Your task to perform on an android device: search for starred emails in the gmail app Image 0: 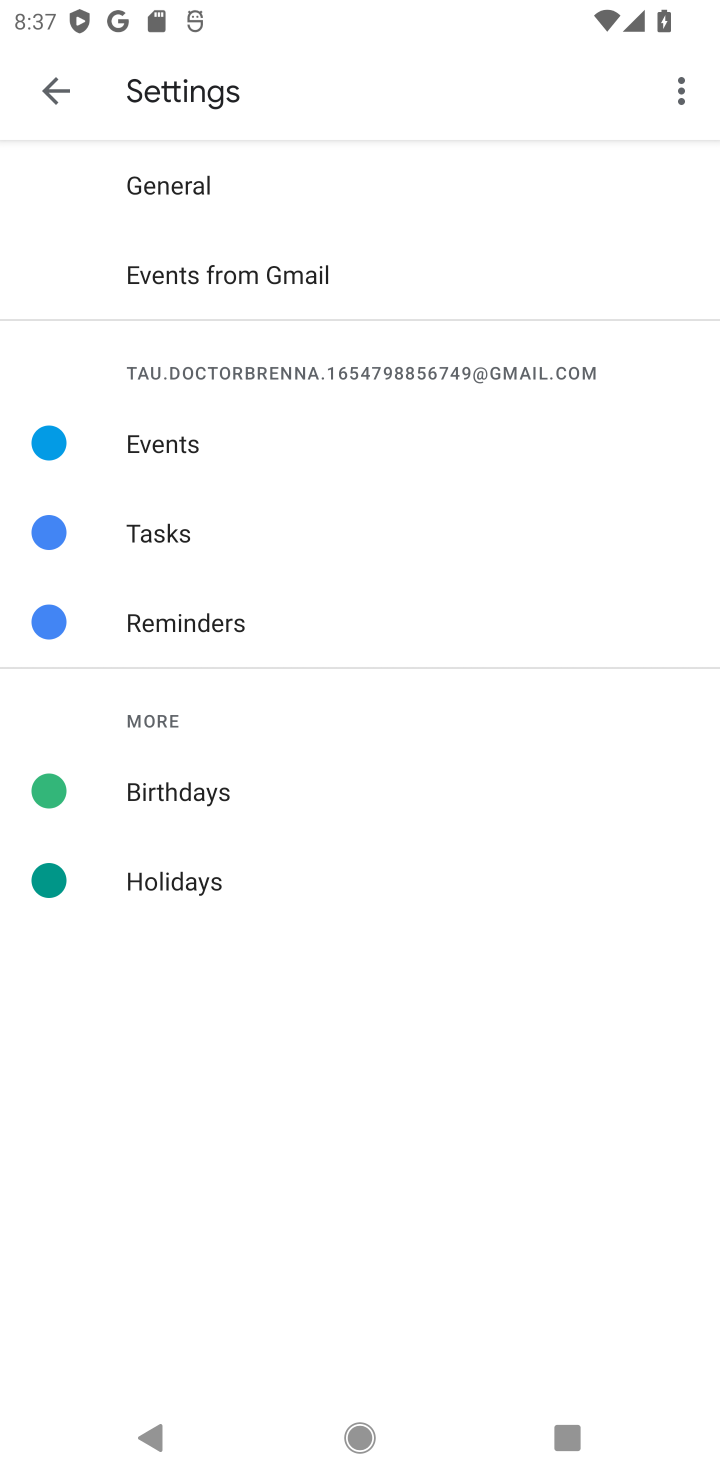
Step 0: press home button
Your task to perform on an android device: search for starred emails in the gmail app Image 1: 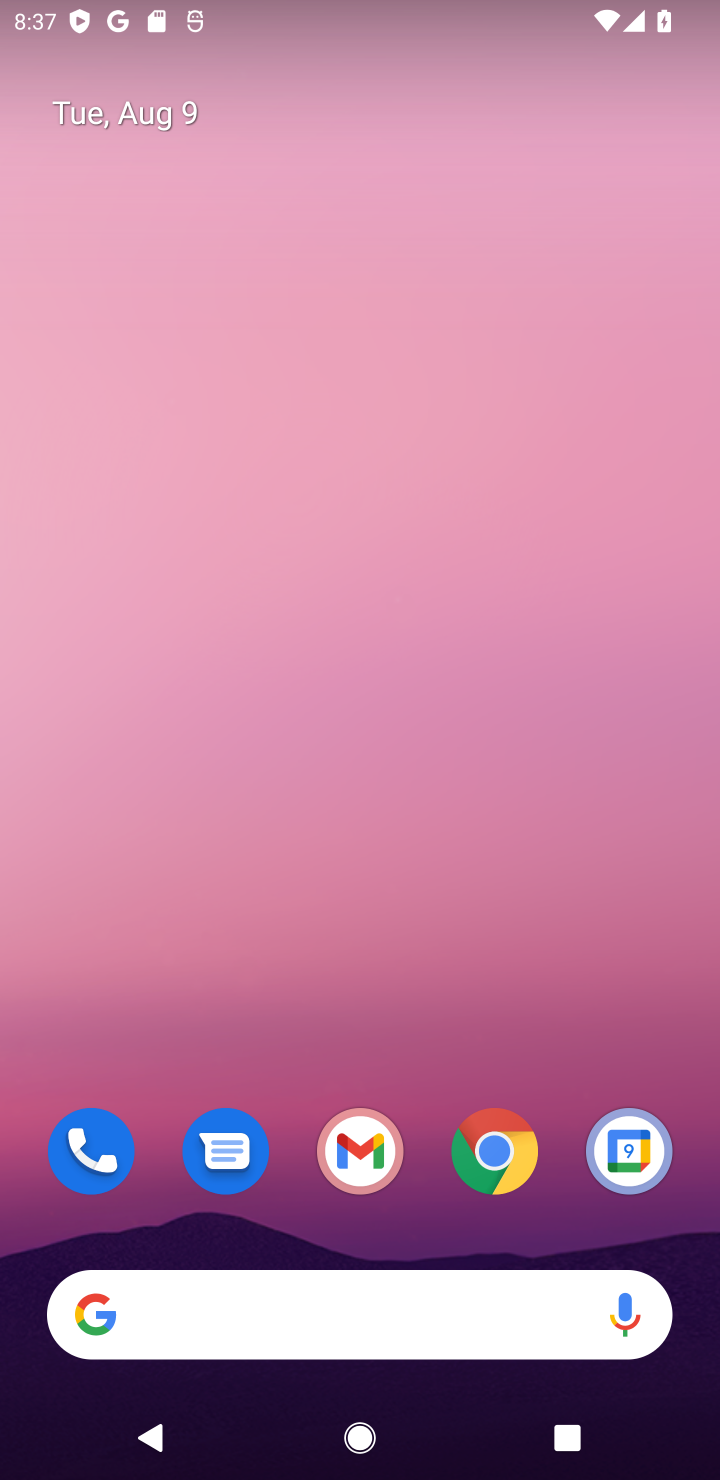
Step 1: click (356, 1175)
Your task to perform on an android device: search for starred emails in the gmail app Image 2: 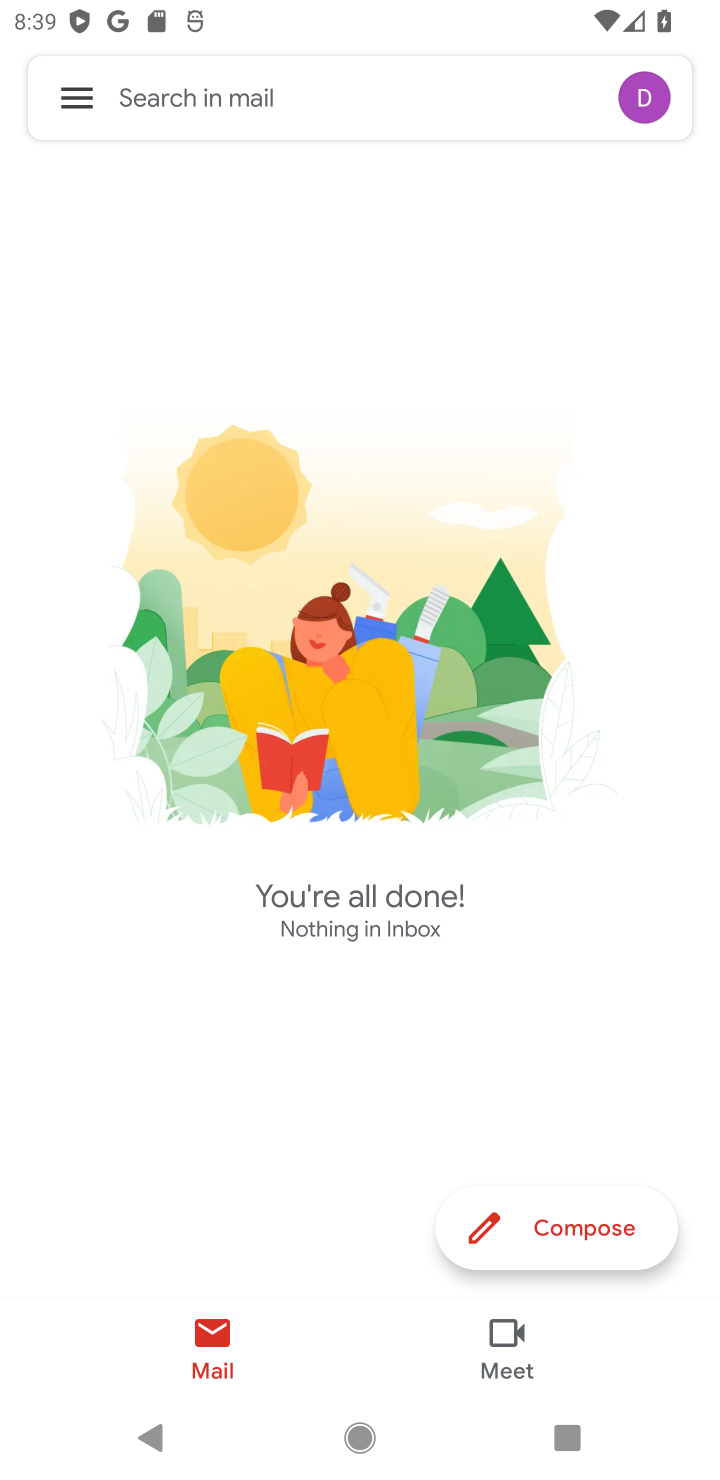
Step 2: task complete